Your task to perform on an android device: turn on translation in the chrome app Image 0: 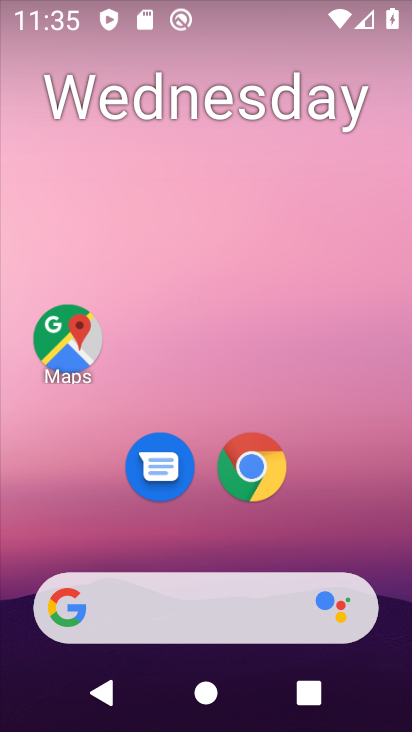
Step 0: click (259, 477)
Your task to perform on an android device: turn on translation in the chrome app Image 1: 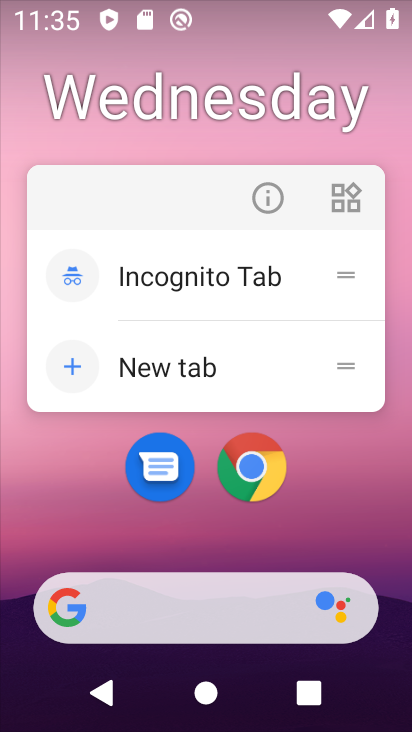
Step 1: click (263, 471)
Your task to perform on an android device: turn on translation in the chrome app Image 2: 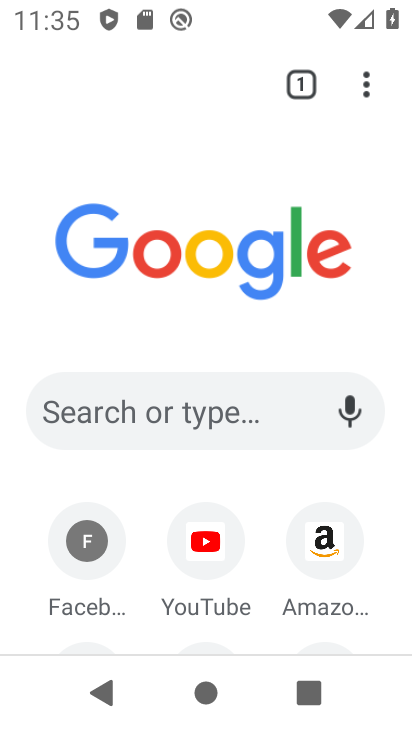
Step 2: drag from (365, 88) to (243, 515)
Your task to perform on an android device: turn on translation in the chrome app Image 3: 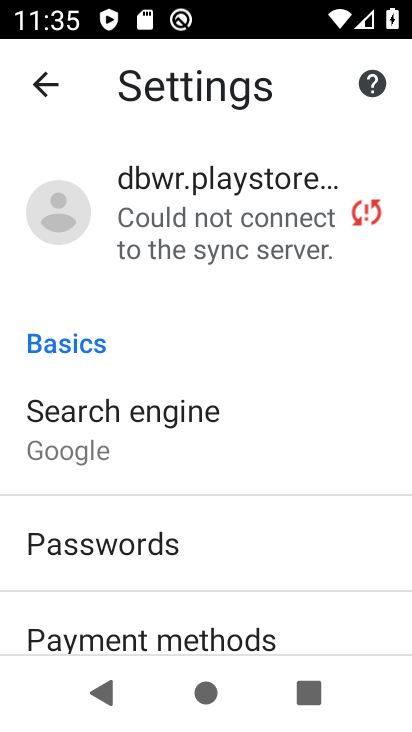
Step 3: drag from (218, 612) to (308, 246)
Your task to perform on an android device: turn on translation in the chrome app Image 4: 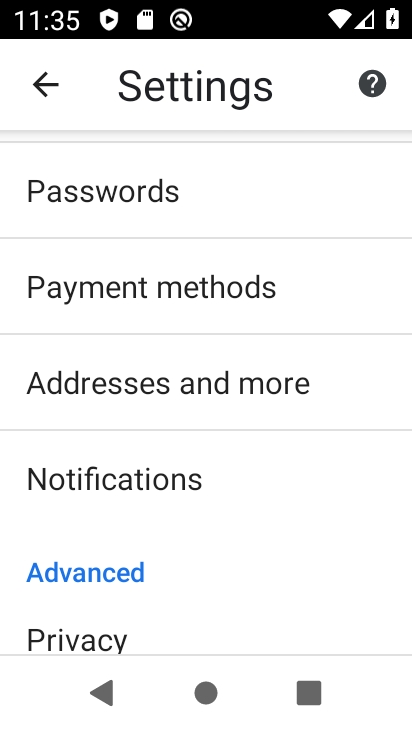
Step 4: drag from (247, 586) to (352, 138)
Your task to perform on an android device: turn on translation in the chrome app Image 5: 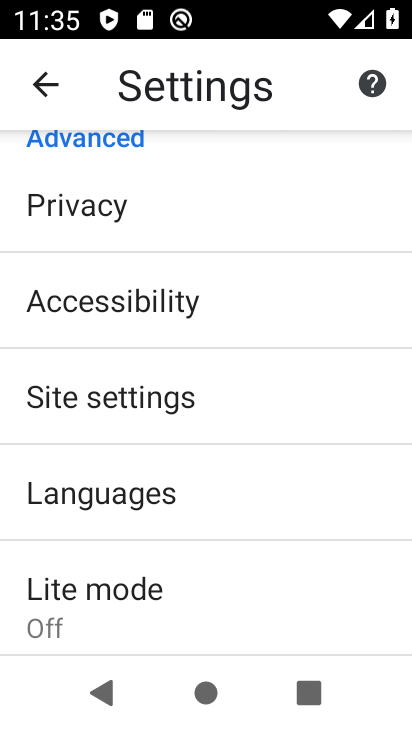
Step 5: click (111, 494)
Your task to perform on an android device: turn on translation in the chrome app Image 6: 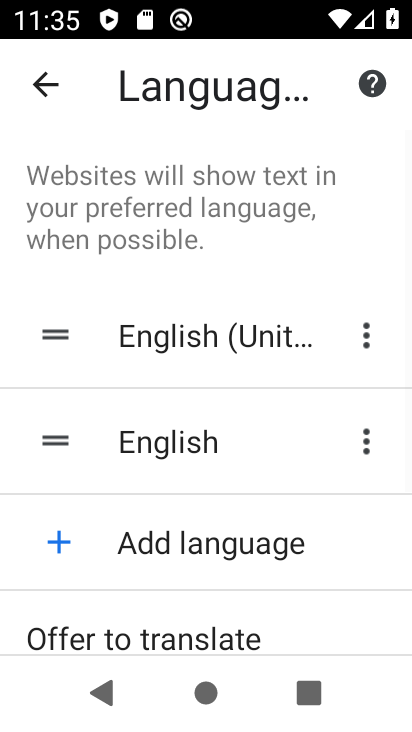
Step 6: task complete